Your task to perform on an android device: Go to Wikipedia Image 0: 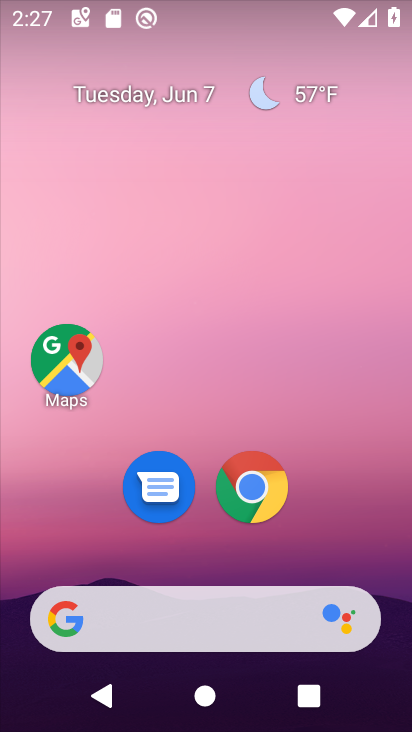
Step 0: drag from (231, 550) to (288, 33)
Your task to perform on an android device: Go to Wikipedia Image 1: 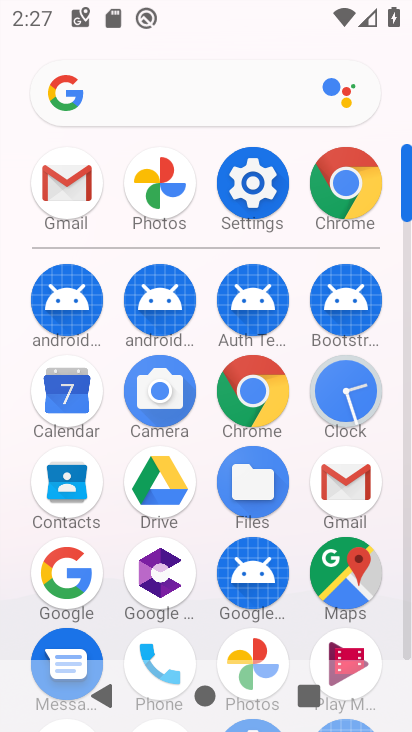
Step 1: click (341, 195)
Your task to perform on an android device: Go to Wikipedia Image 2: 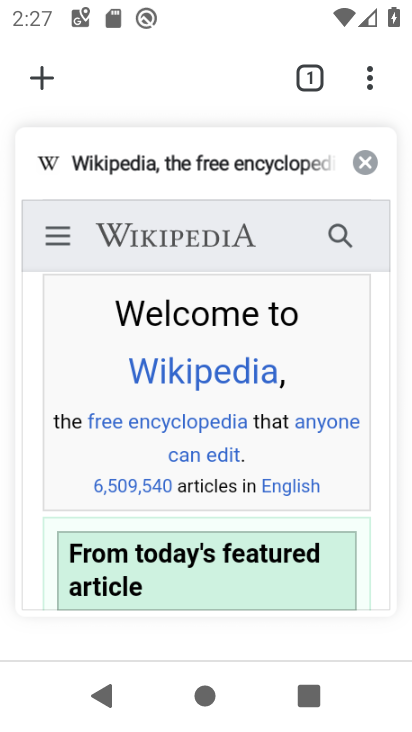
Step 2: click (233, 514)
Your task to perform on an android device: Go to Wikipedia Image 3: 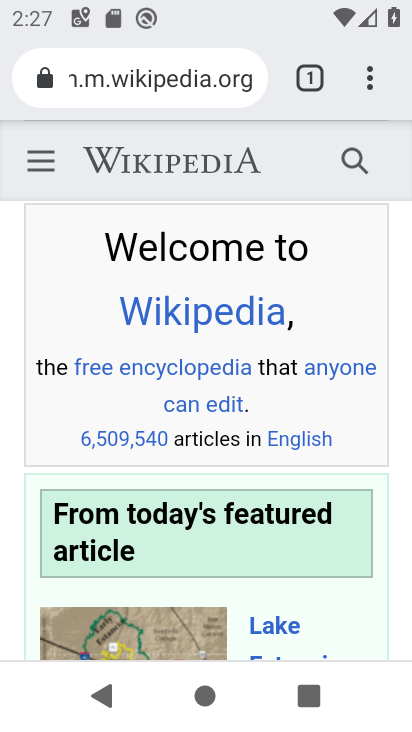
Step 3: task complete